Your task to perform on an android device: check android version Image 0: 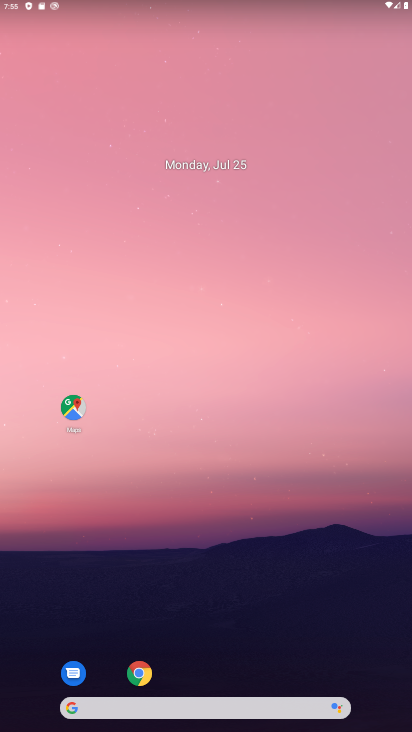
Step 0: drag from (204, 683) to (247, 55)
Your task to perform on an android device: check android version Image 1: 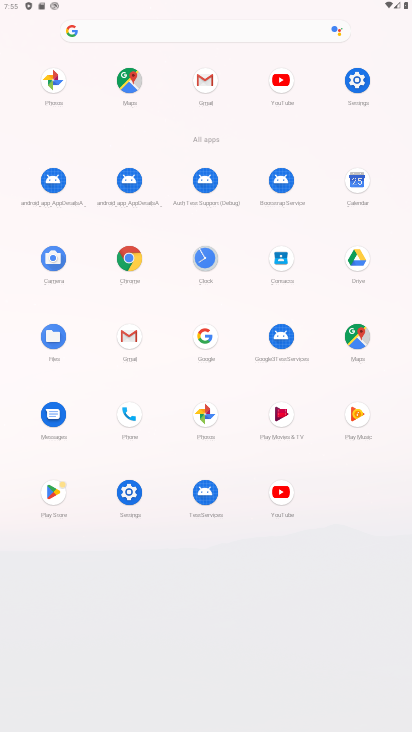
Step 1: click (135, 493)
Your task to perform on an android device: check android version Image 2: 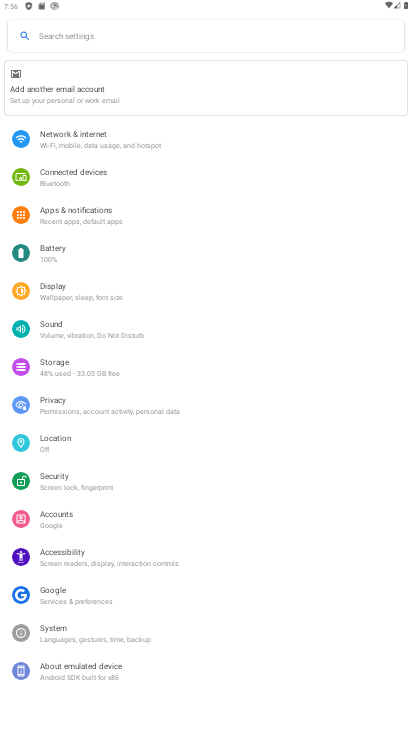
Step 2: drag from (95, 660) to (228, 75)
Your task to perform on an android device: check android version Image 3: 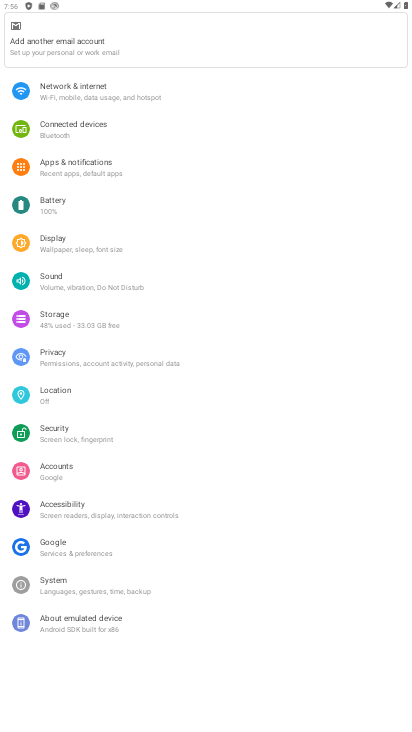
Step 3: click (72, 618)
Your task to perform on an android device: check android version Image 4: 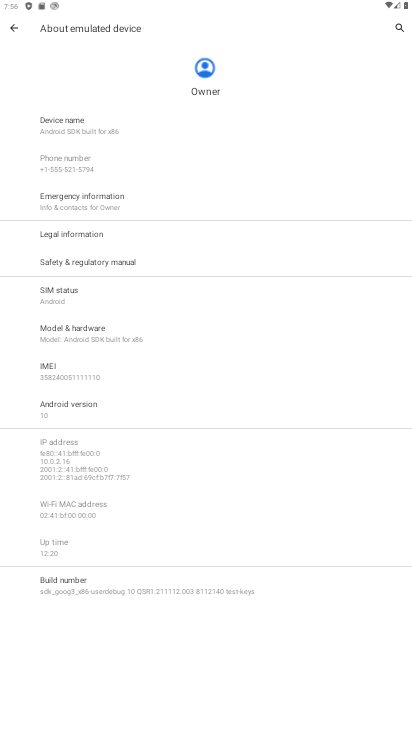
Step 4: task complete